Your task to perform on an android device: Open wifi settings Image 0: 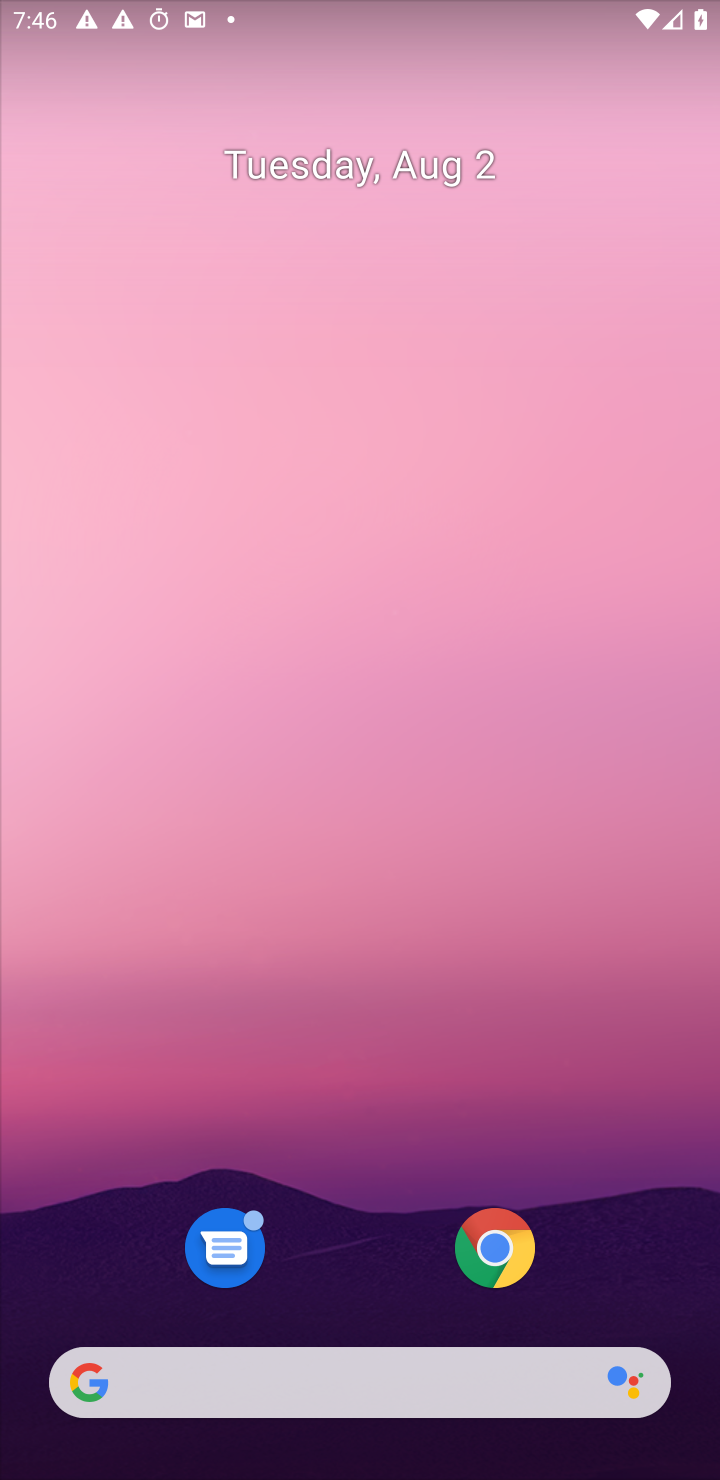
Step 0: press home button
Your task to perform on an android device: Open wifi settings Image 1: 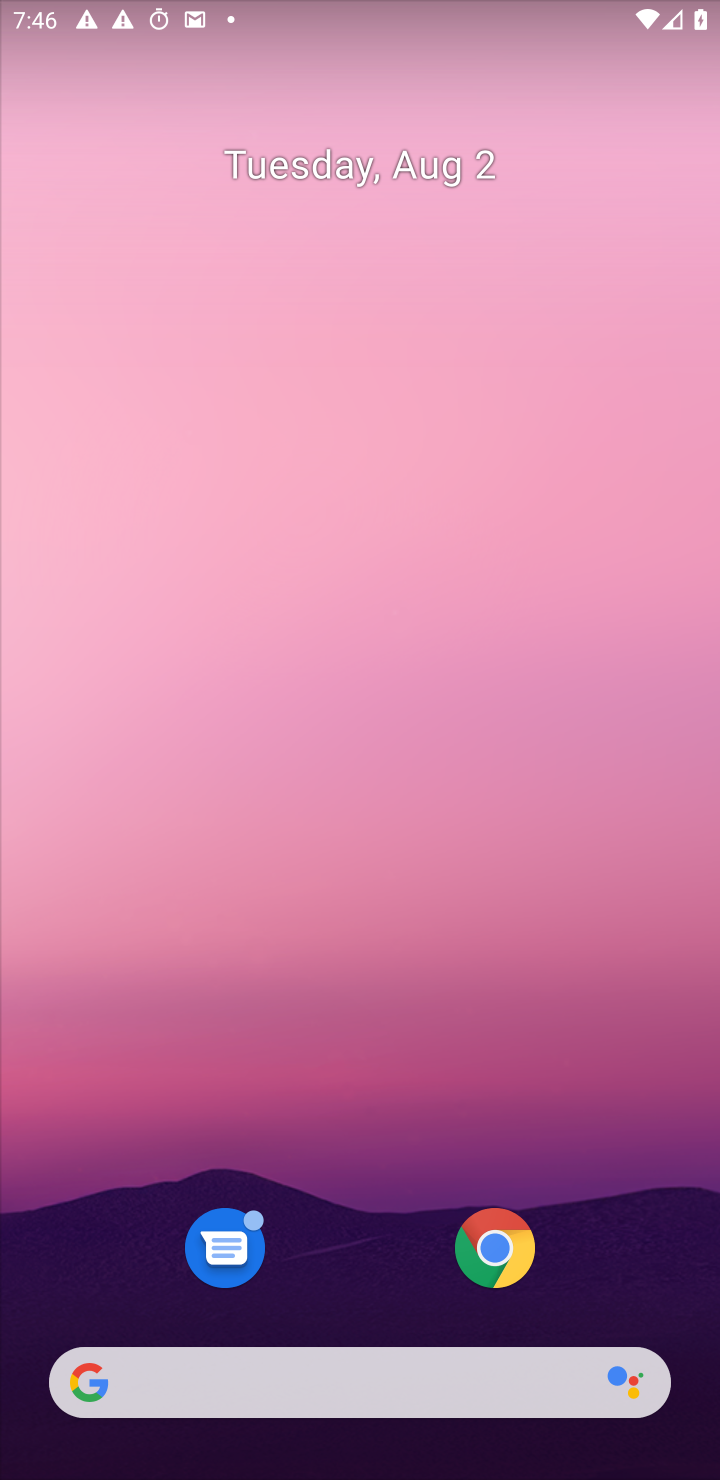
Step 1: drag from (392, 1054) to (464, 0)
Your task to perform on an android device: Open wifi settings Image 2: 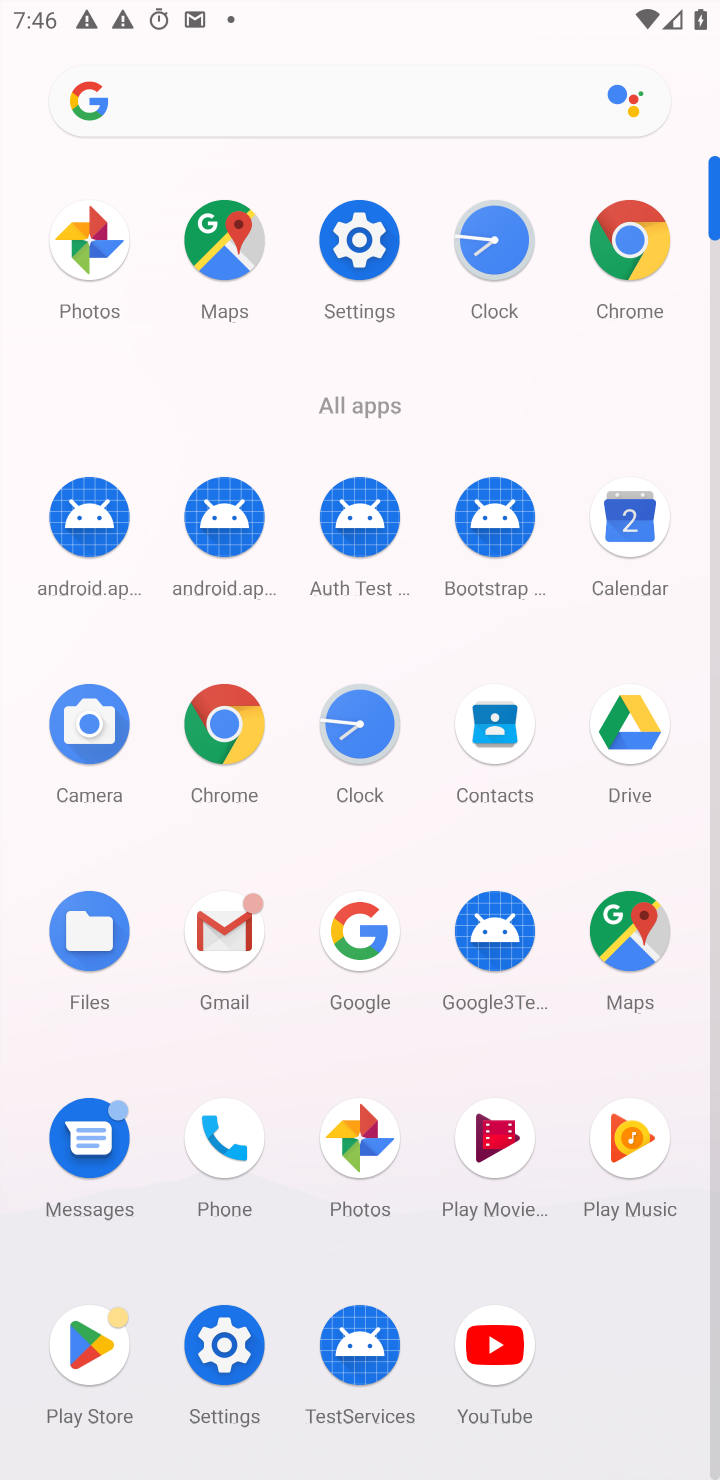
Step 2: click (362, 235)
Your task to perform on an android device: Open wifi settings Image 3: 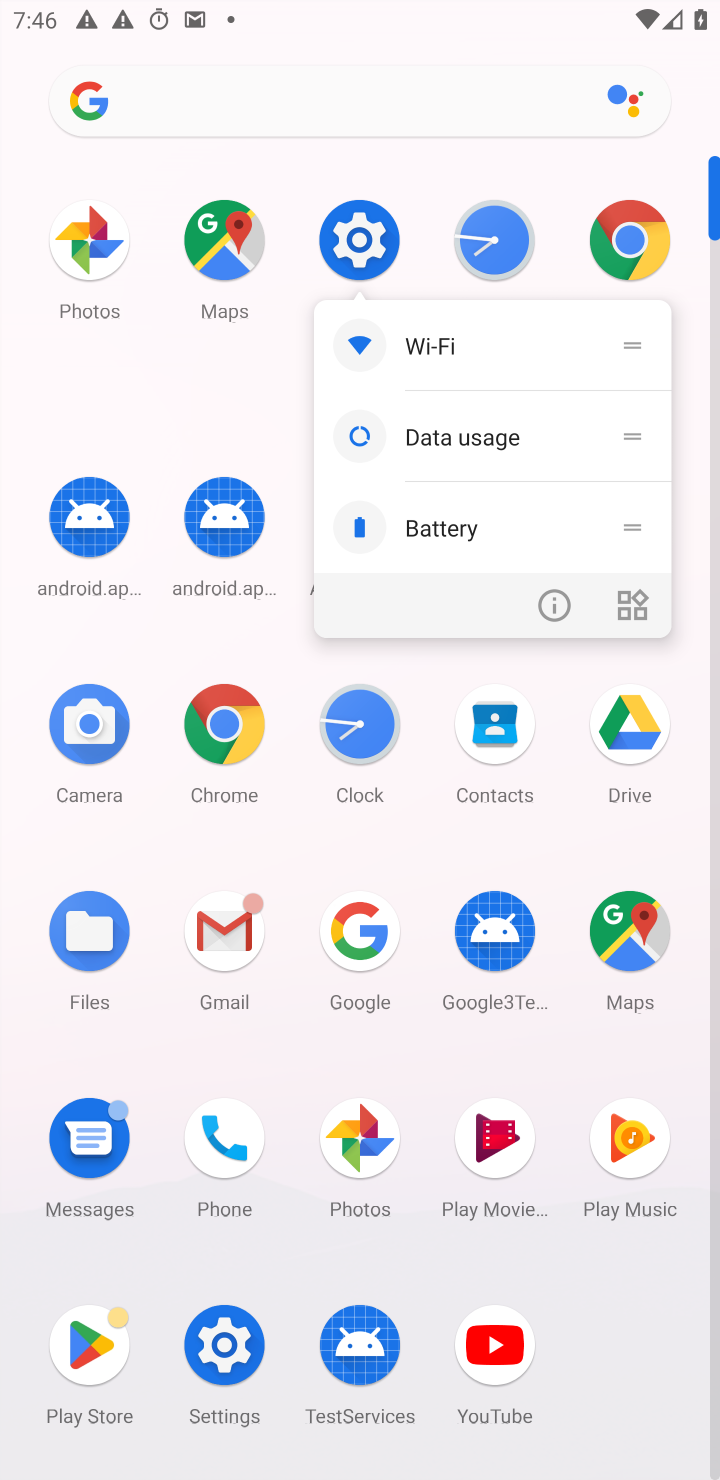
Step 3: click (472, 346)
Your task to perform on an android device: Open wifi settings Image 4: 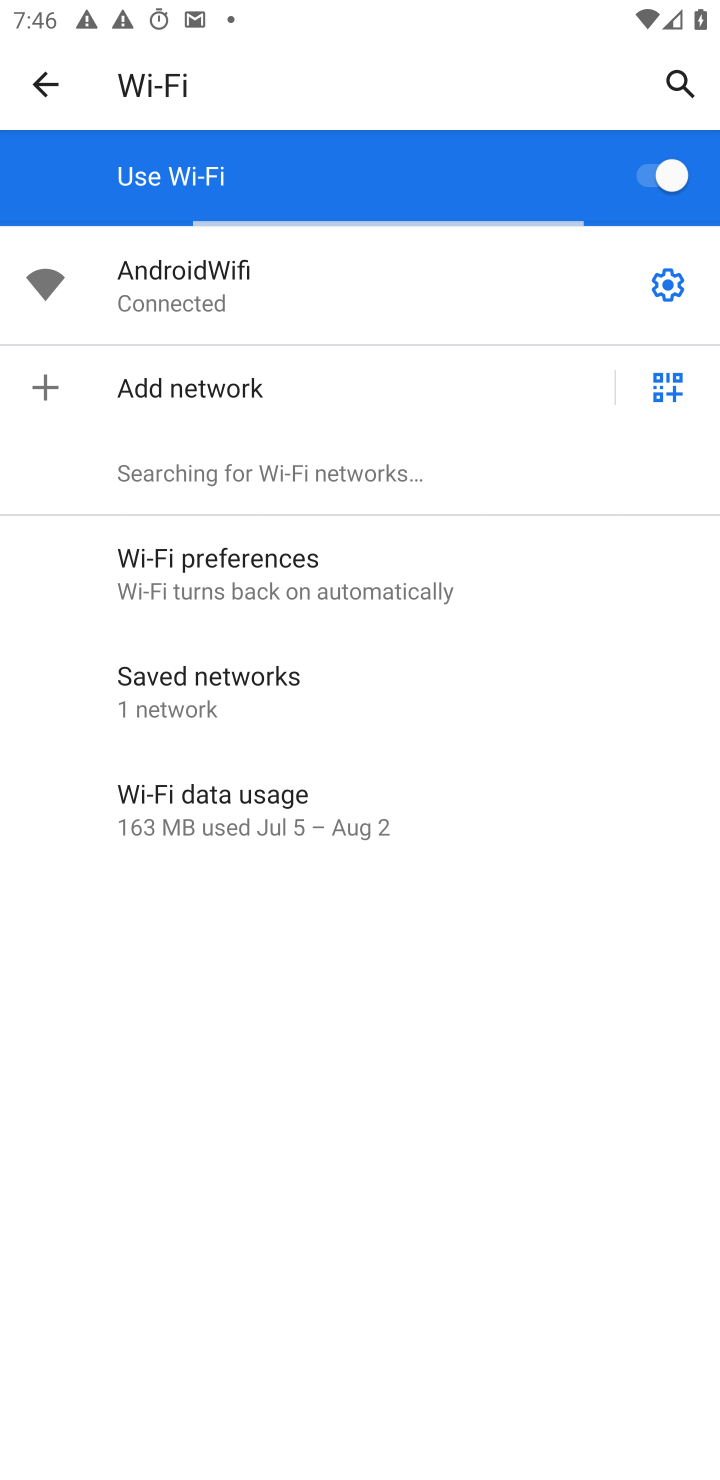
Step 4: drag from (266, 1047) to (427, 1478)
Your task to perform on an android device: Open wifi settings Image 5: 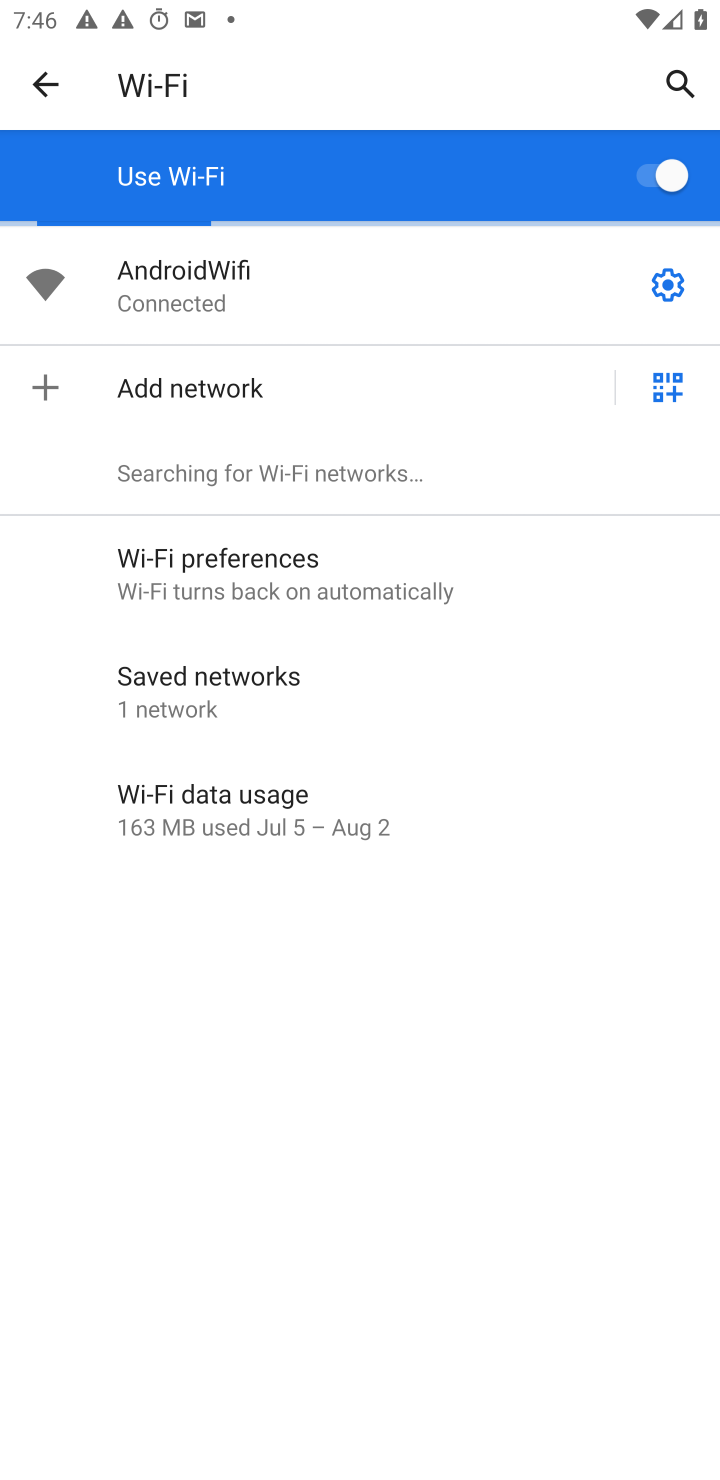
Step 5: click (663, 286)
Your task to perform on an android device: Open wifi settings Image 6: 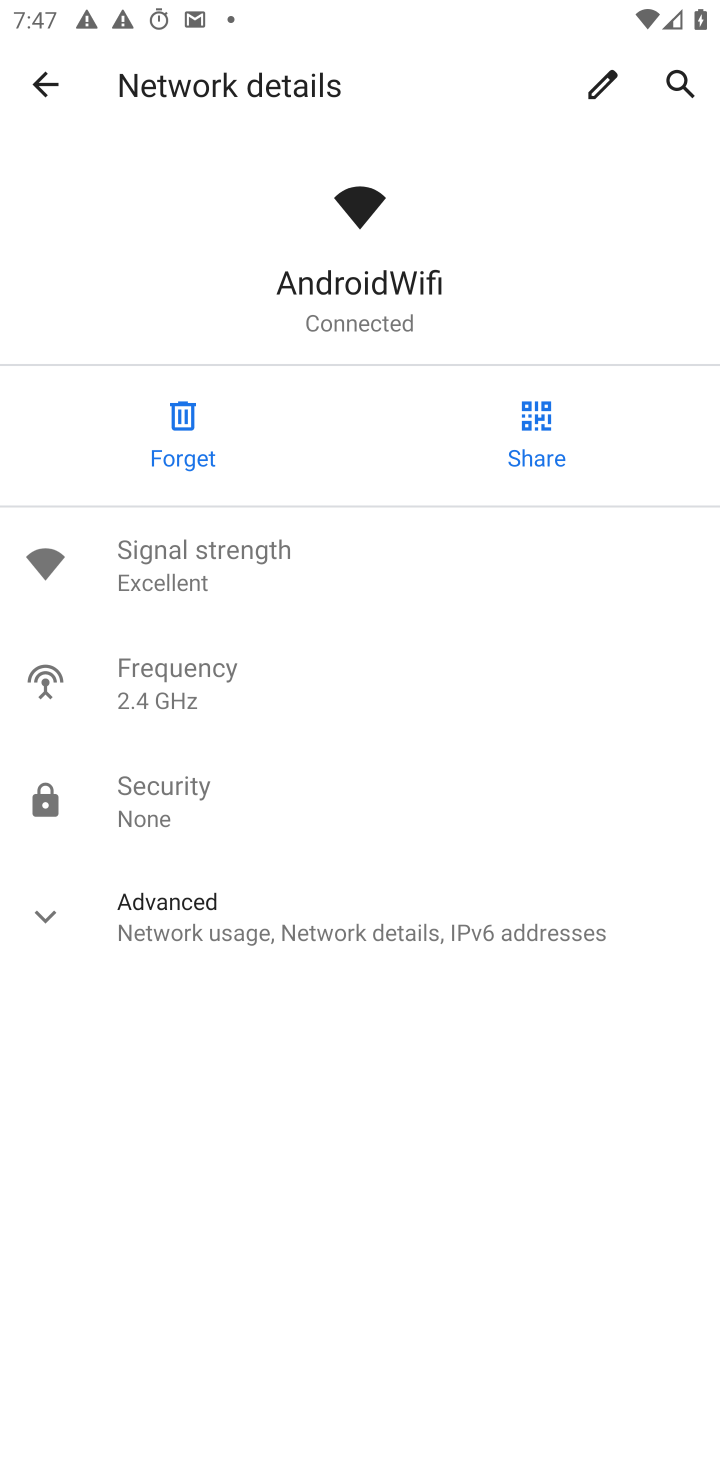
Step 6: click (311, 1076)
Your task to perform on an android device: Open wifi settings Image 7: 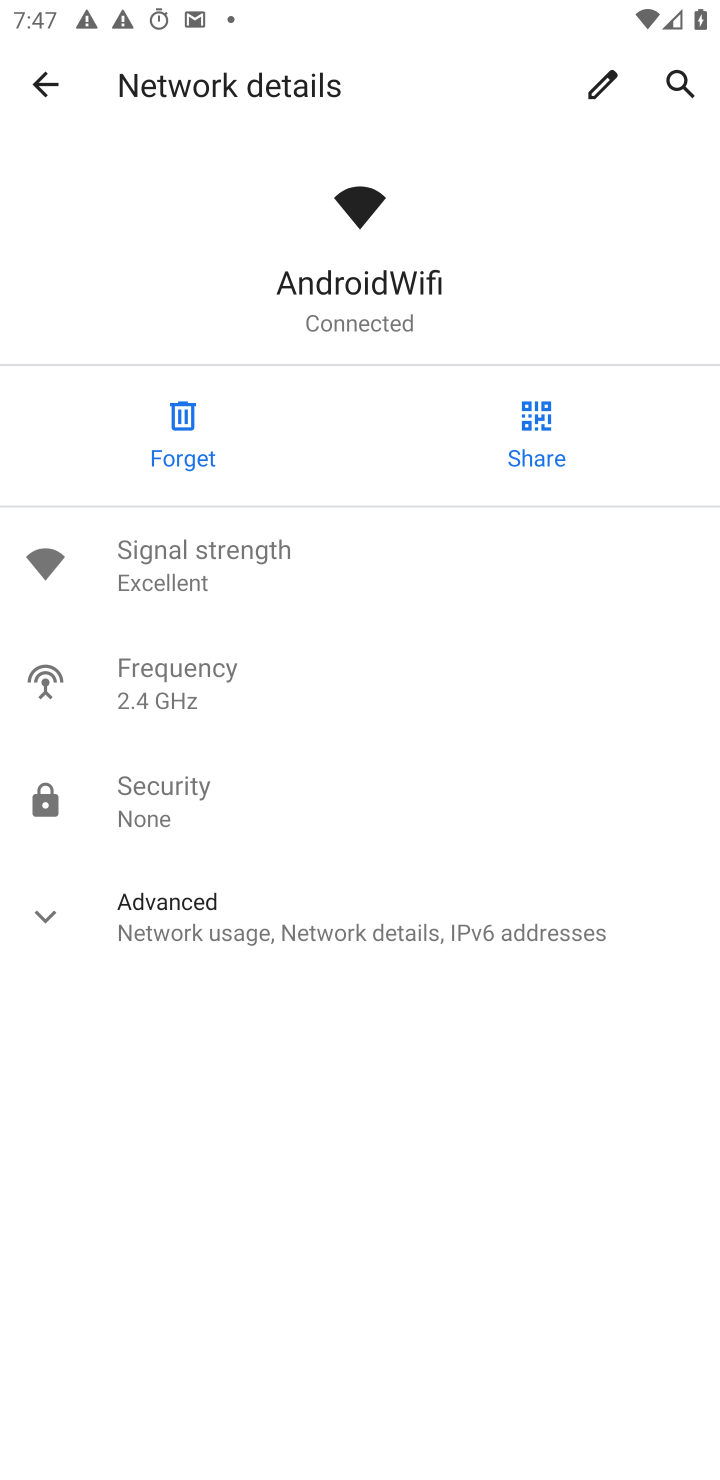
Step 7: drag from (261, 677) to (489, 1404)
Your task to perform on an android device: Open wifi settings Image 8: 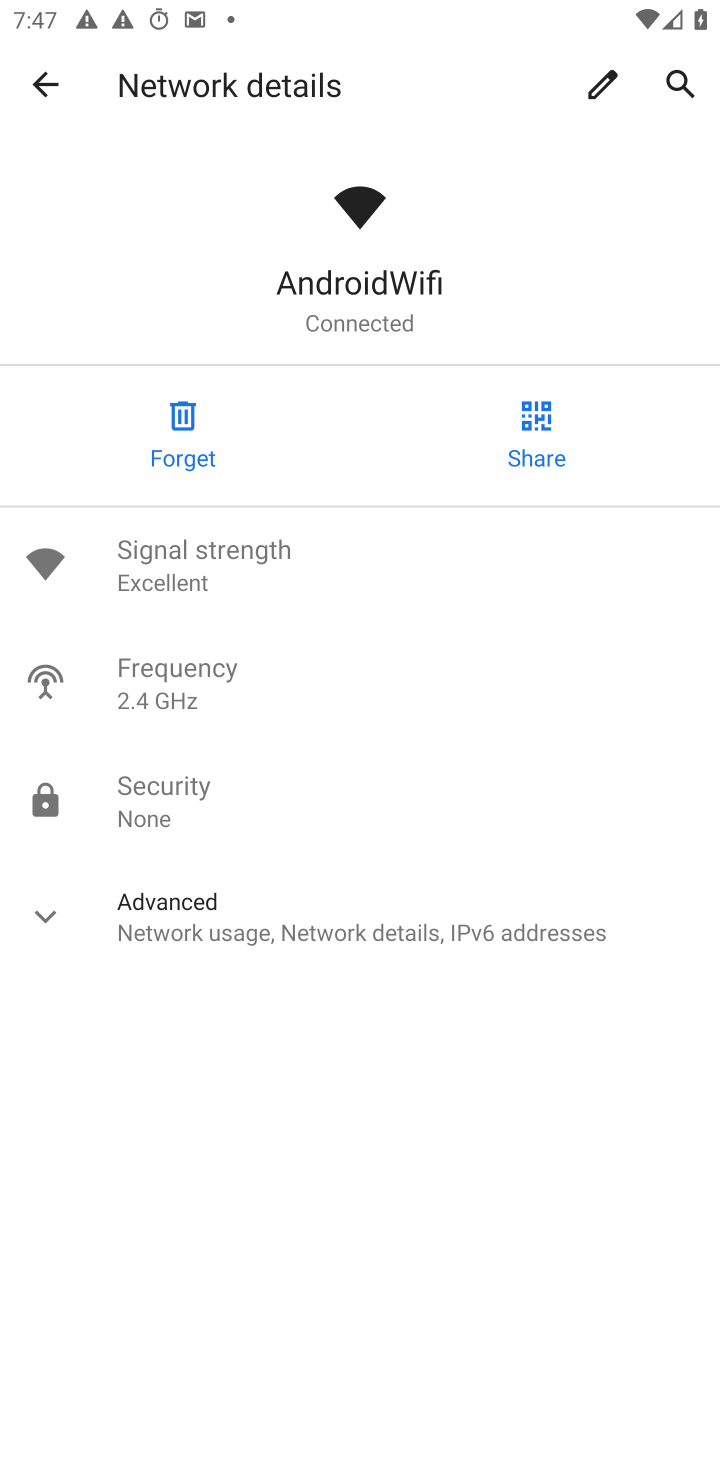
Step 8: drag from (390, 1147) to (219, 267)
Your task to perform on an android device: Open wifi settings Image 9: 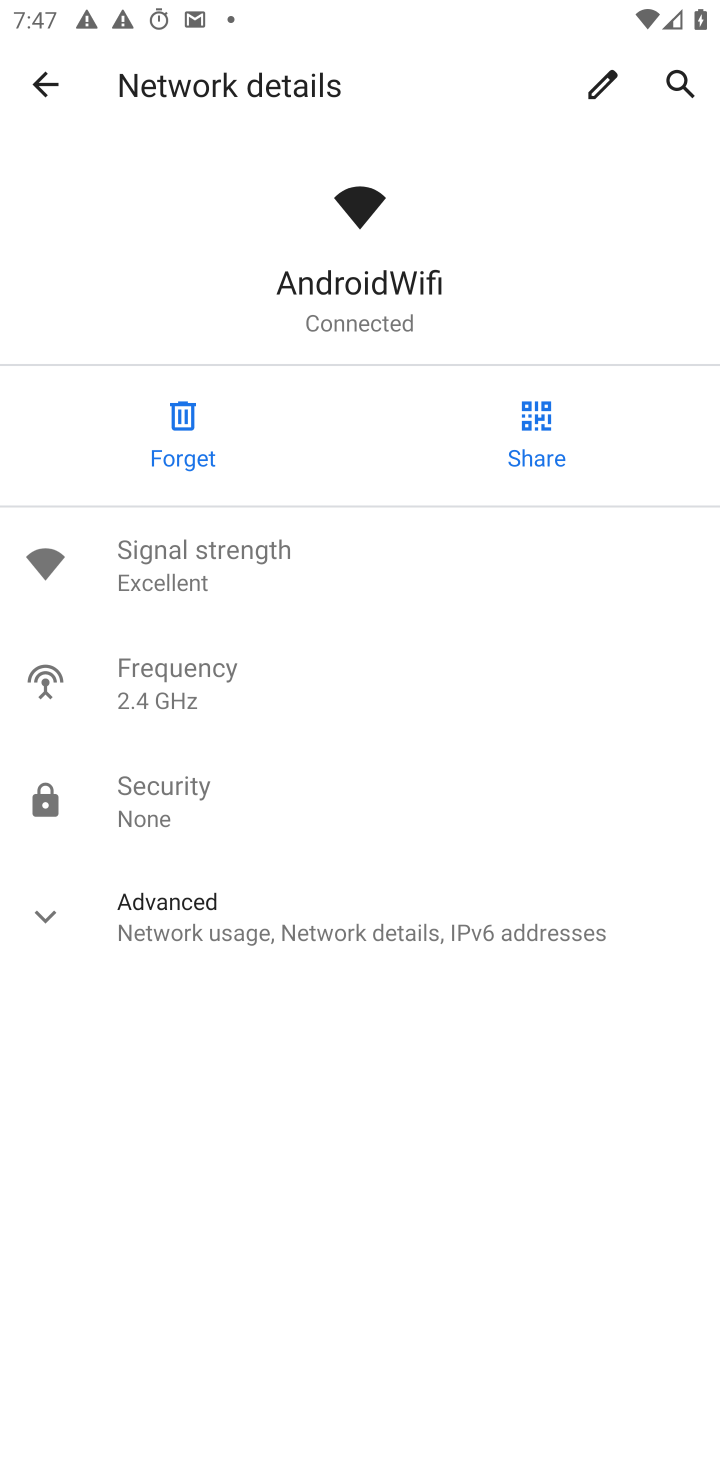
Step 9: drag from (246, 1044) to (313, 344)
Your task to perform on an android device: Open wifi settings Image 10: 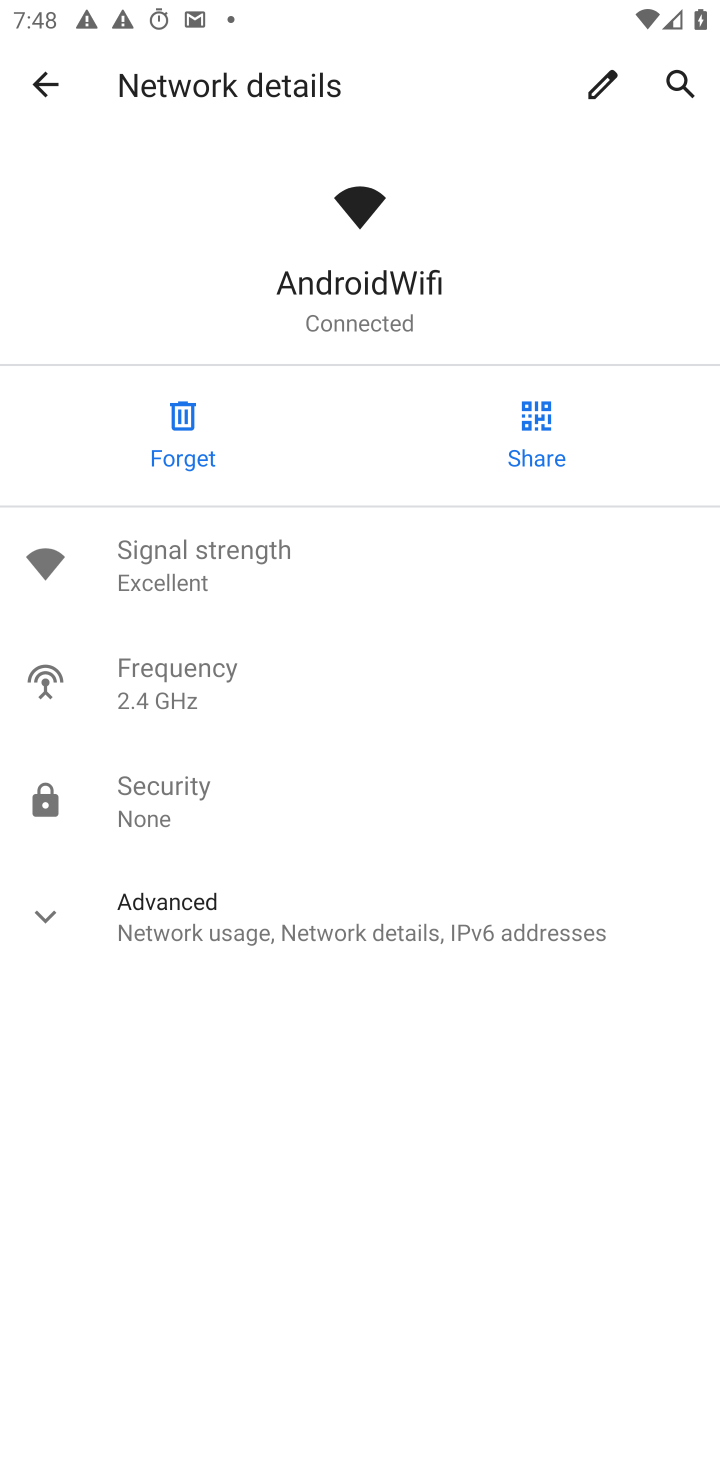
Step 10: drag from (337, 959) to (378, 465)
Your task to perform on an android device: Open wifi settings Image 11: 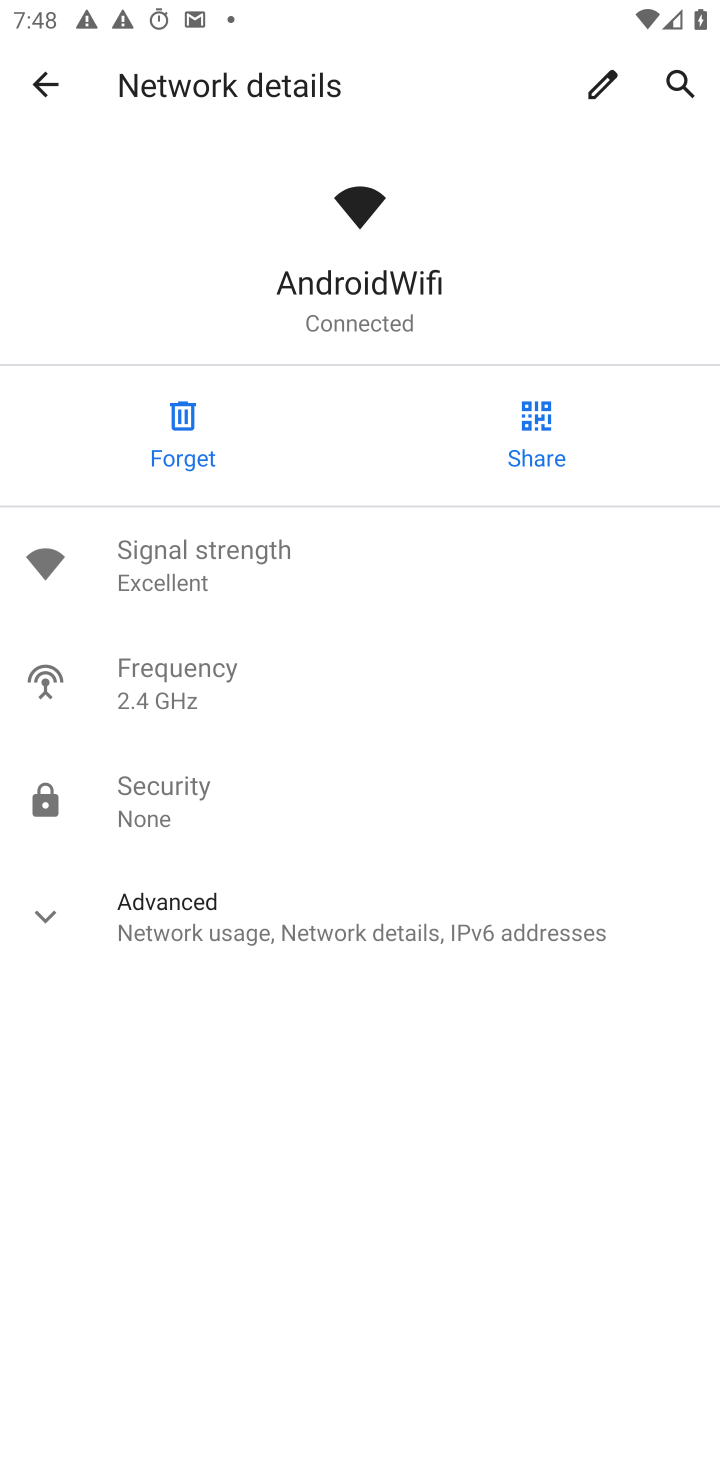
Step 11: drag from (314, 1034) to (372, 347)
Your task to perform on an android device: Open wifi settings Image 12: 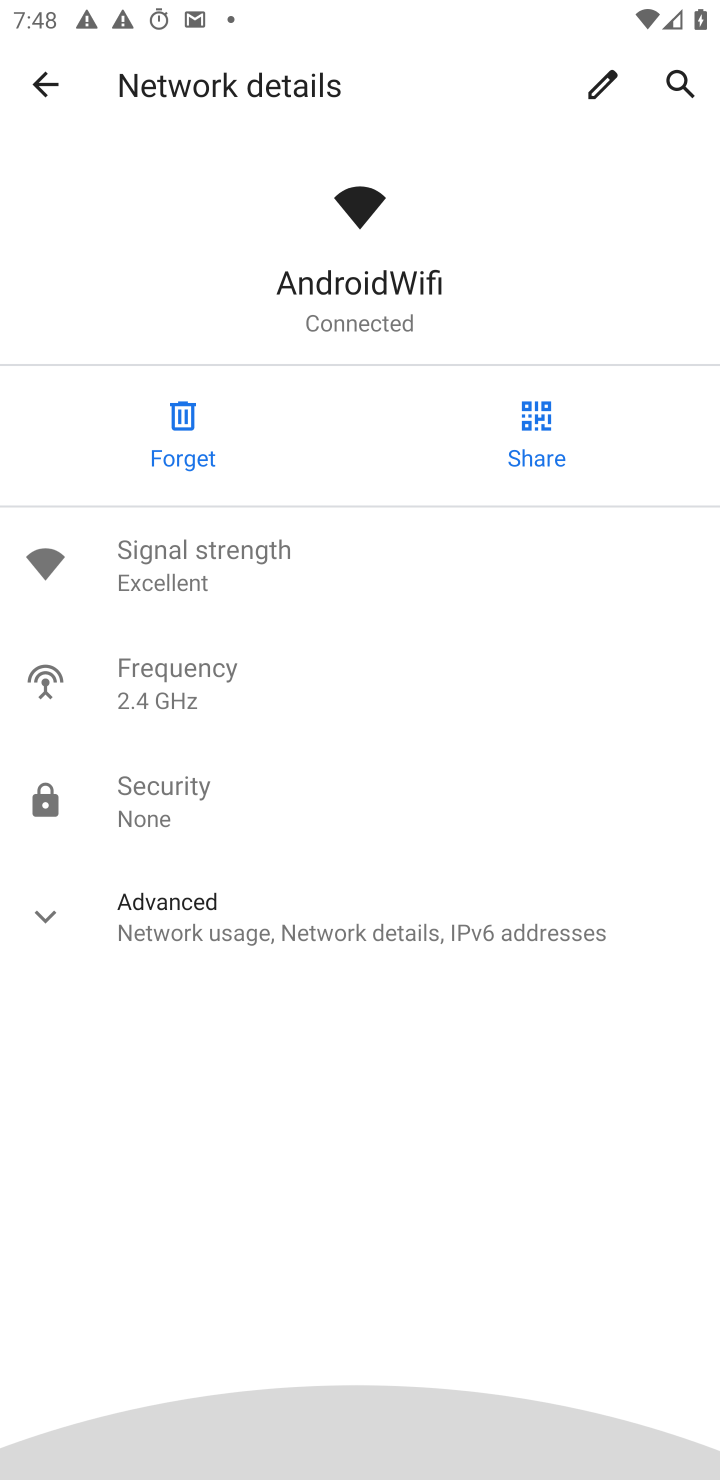
Step 12: drag from (471, 772) to (510, 1125)
Your task to perform on an android device: Open wifi settings Image 13: 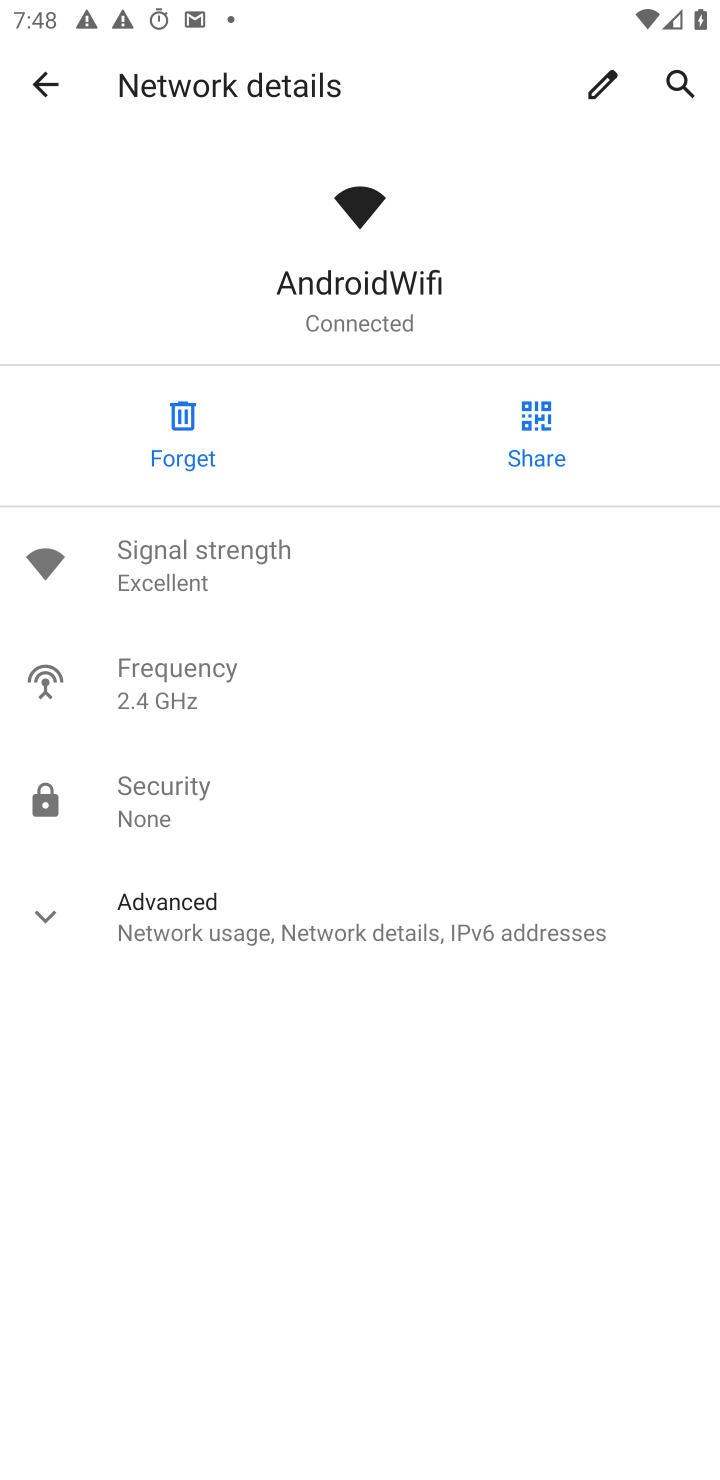
Step 13: drag from (334, 289) to (354, 1034)
Your task to perform on an android device: Open wifi settings Image 14: 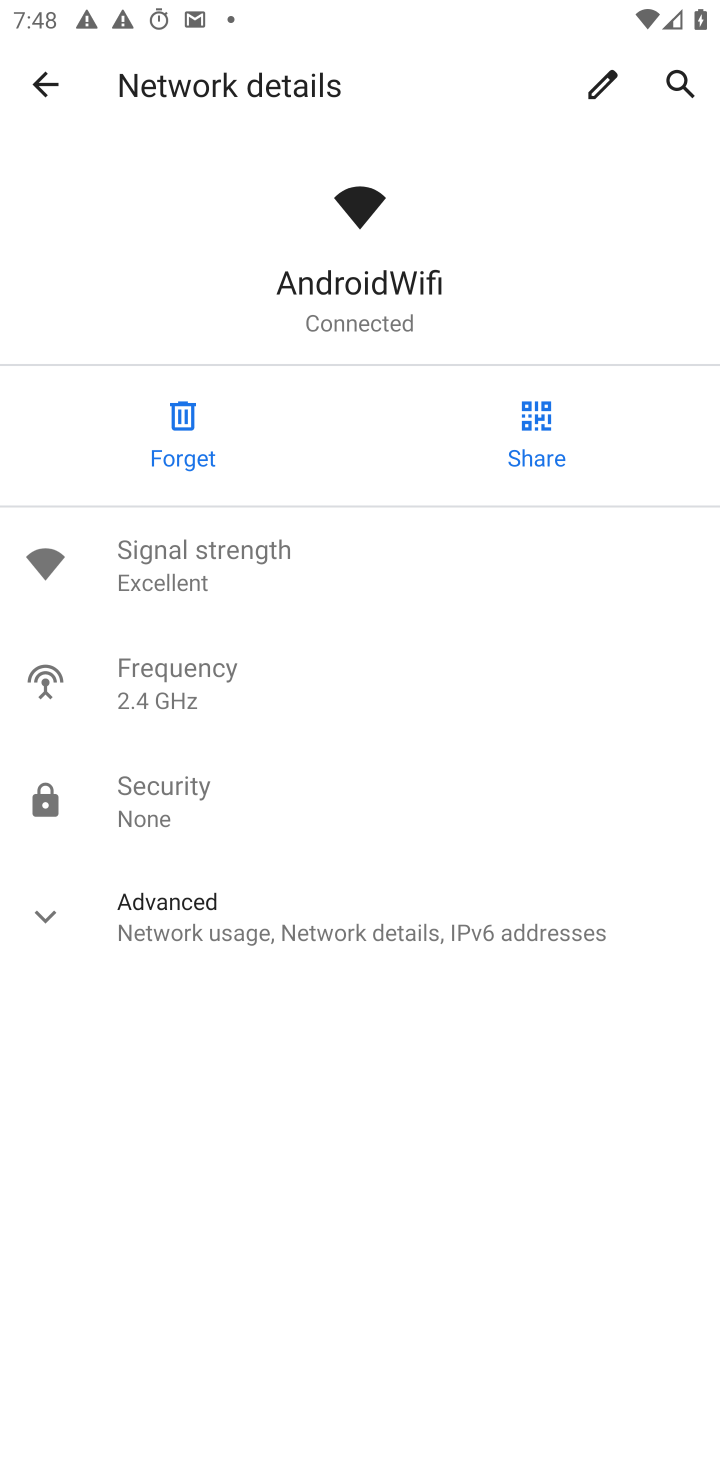
Step 14: drag from (350, 830) to (402, 345)
Your task to perform on an android device: Open wifi settings Image 15: 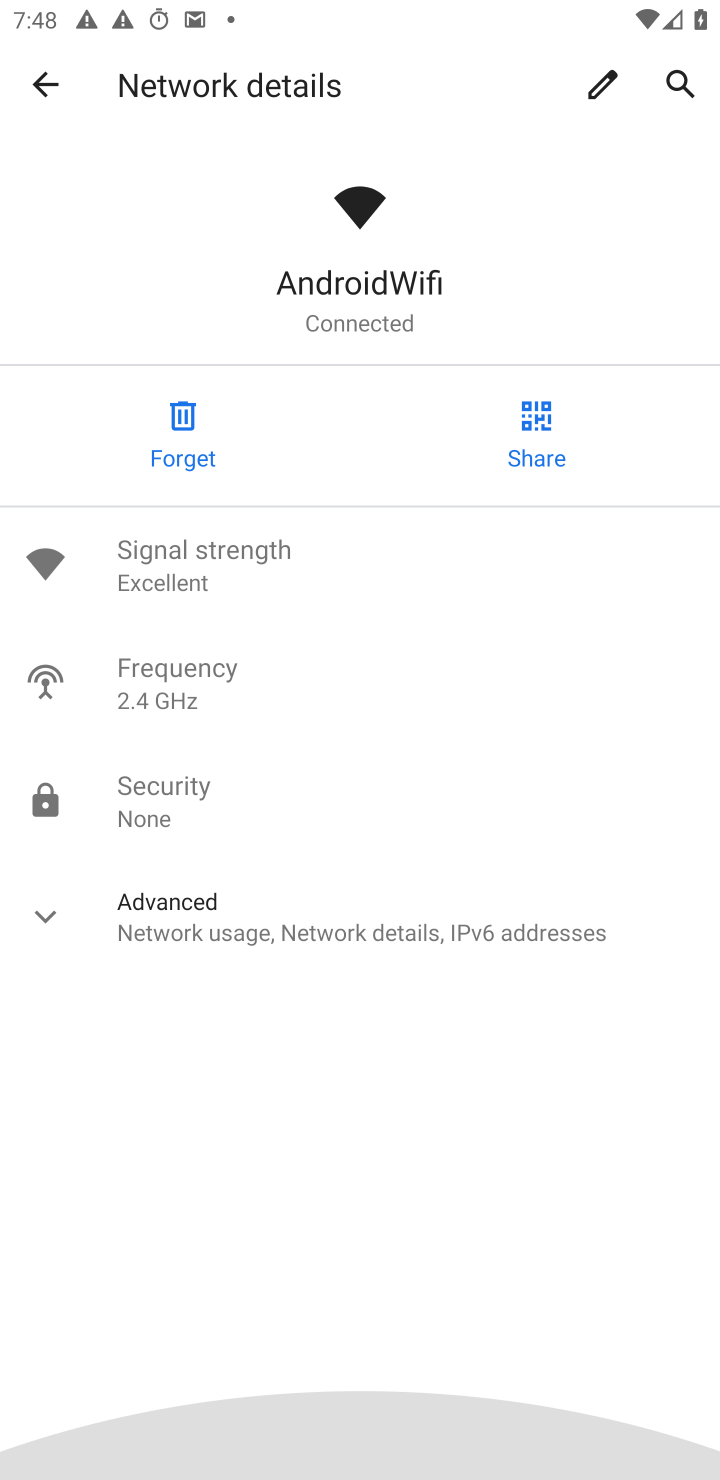
Step 15: drag from (408, 333) to (380, 1141)
Your task to perform on an android device: Open wifi settings Image 16: 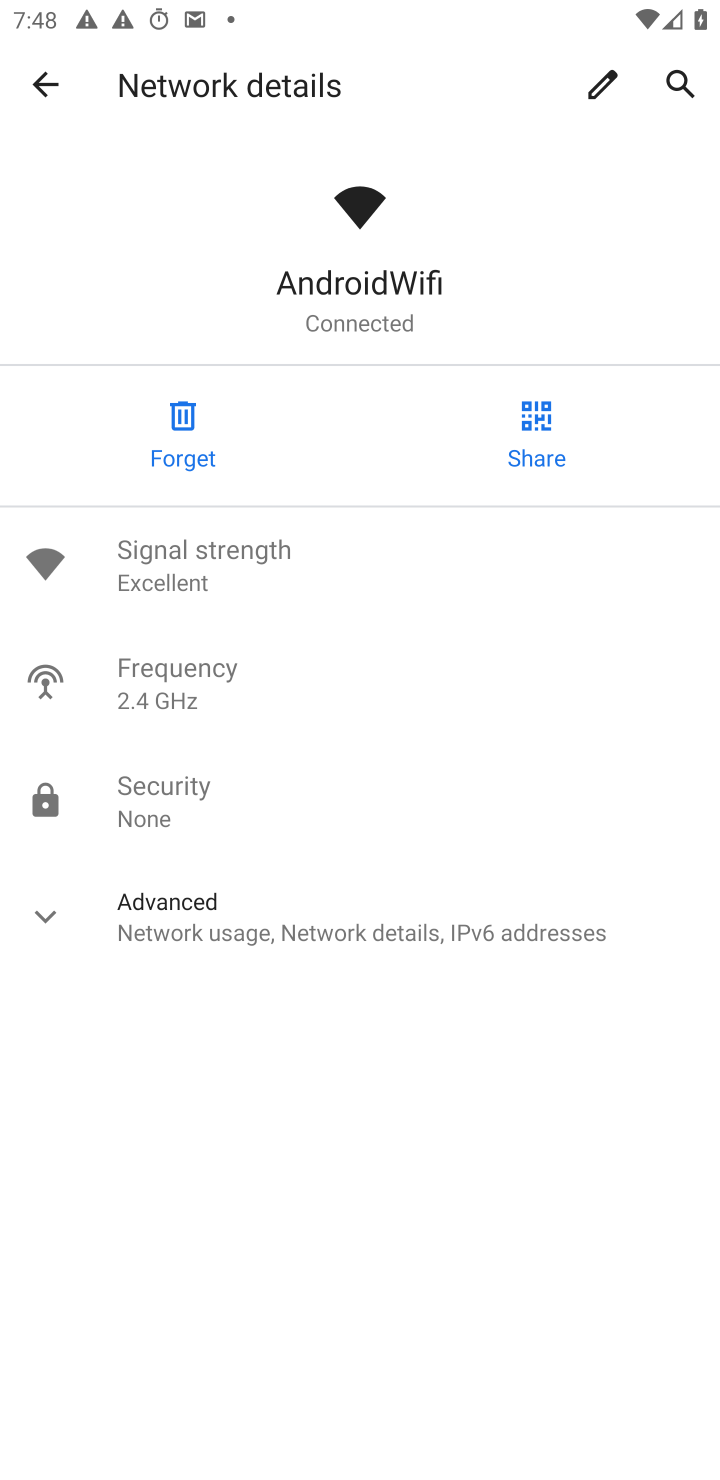
Step 16: drag from (440, 425) to (497, 1221)
Your task to perform on an android device: Open wifi settings Image 17: 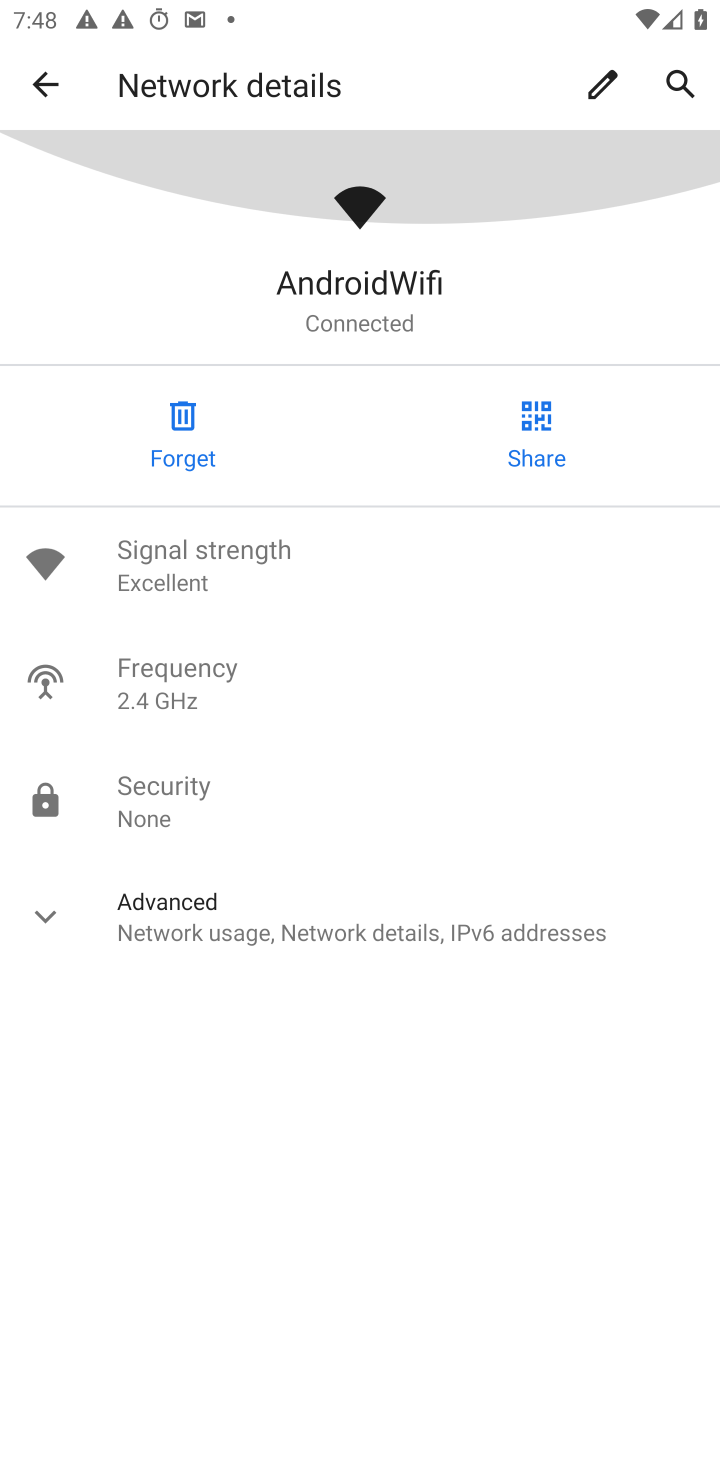
Step 17: drag from (442, 1169) to (395, 426)
Your task to perform on an android device: Open wifi settings Image 18: 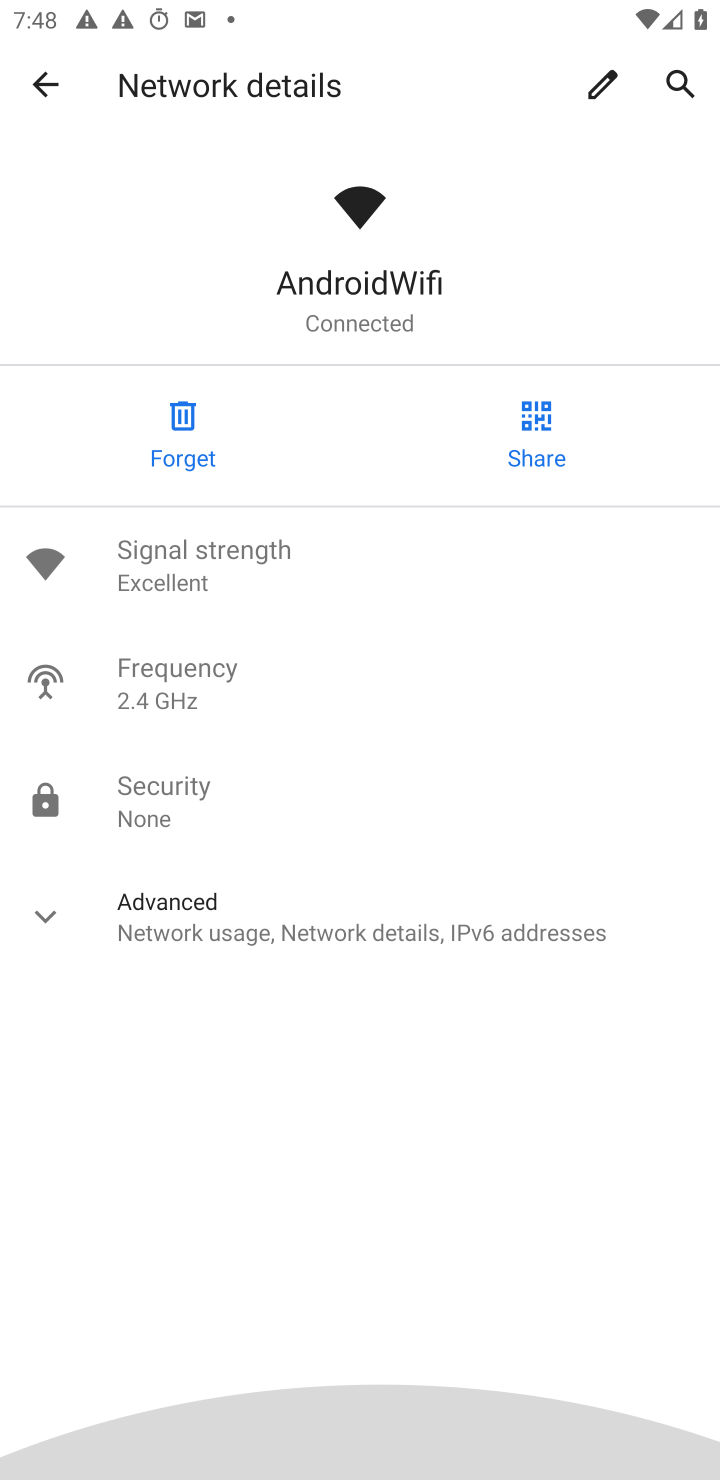
Step 18: drag from (395, 377) to (398, 1164)
Your task to perform on an android device: Open wifi settings Image 19: 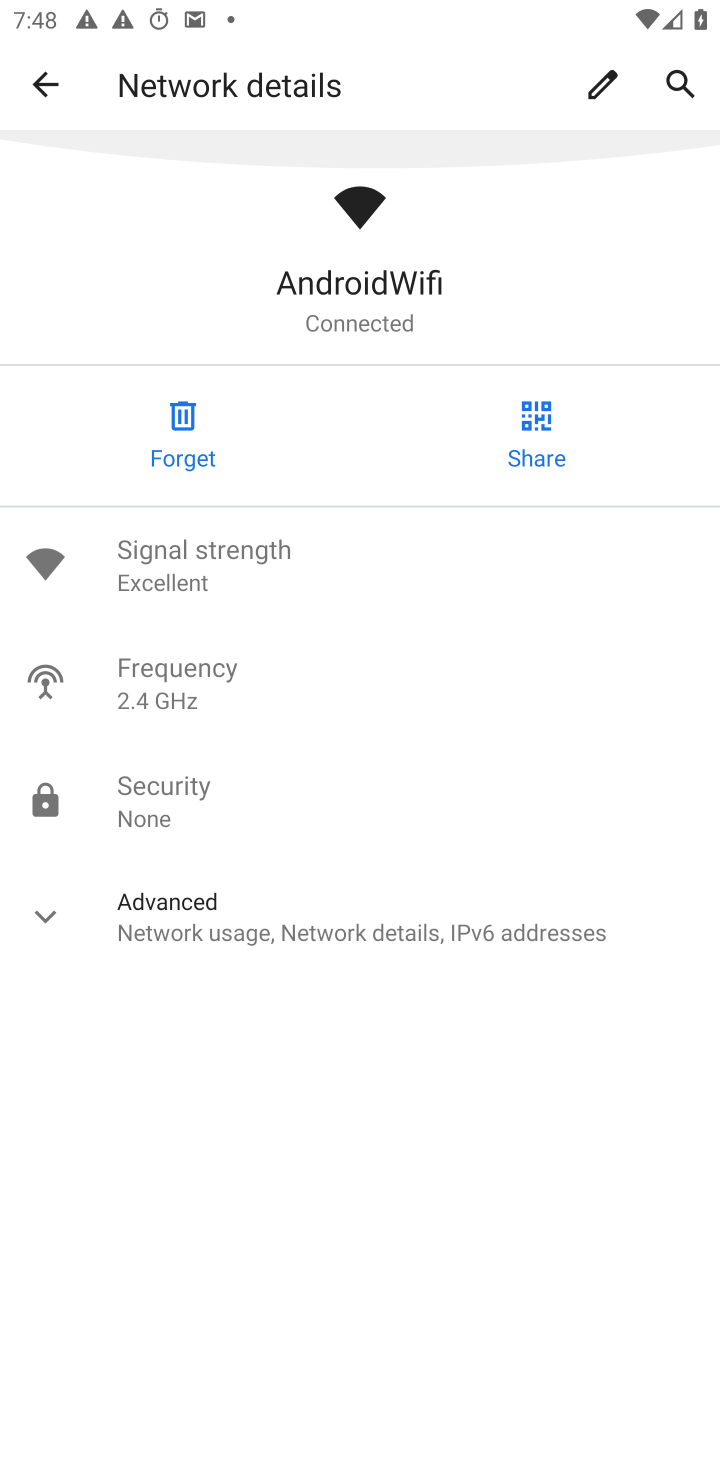
Step 19: drag from (388, 1015) to (414, 190)
Your task to perform on an android device: Open wifi settings Image 20: 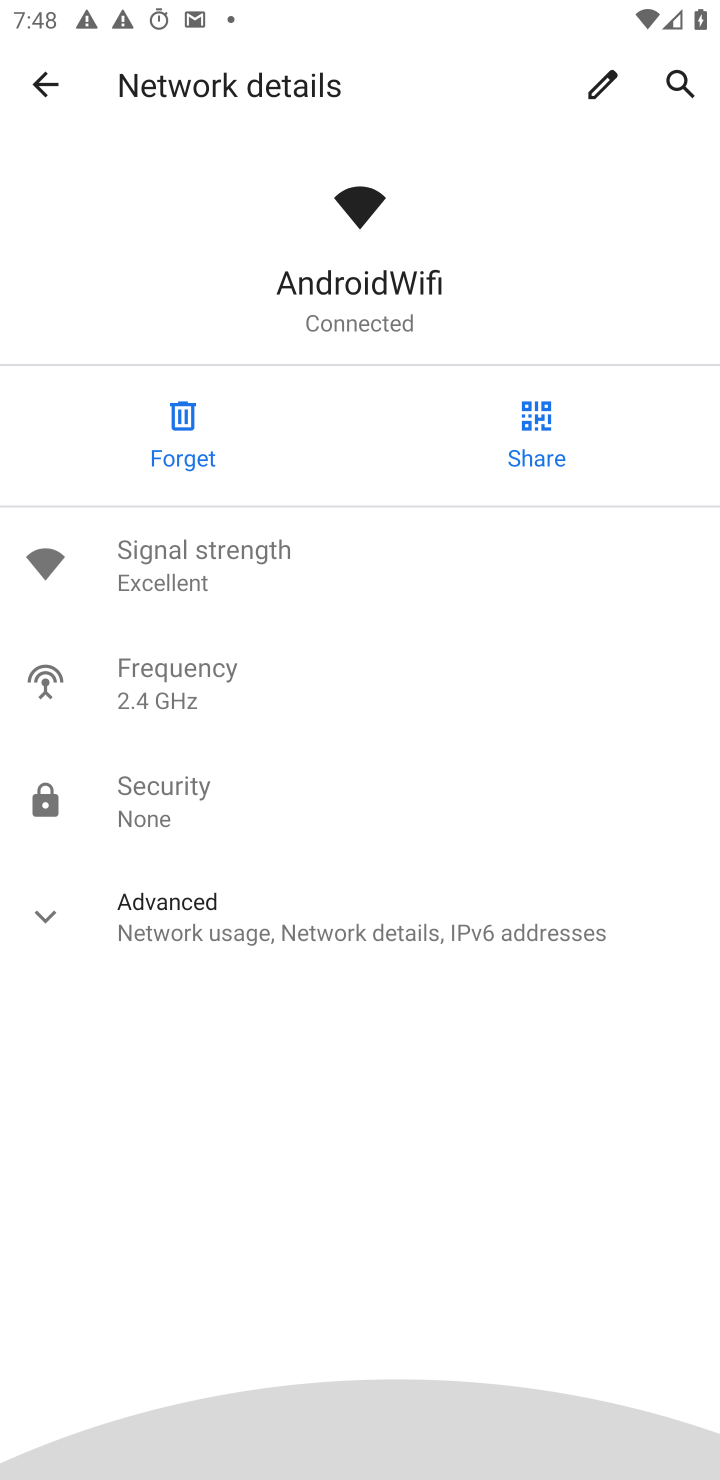
Step 20: drag from (328, 305) to (362, 1281)
Your task to perform on an android device: Open wifi settings Image 21: 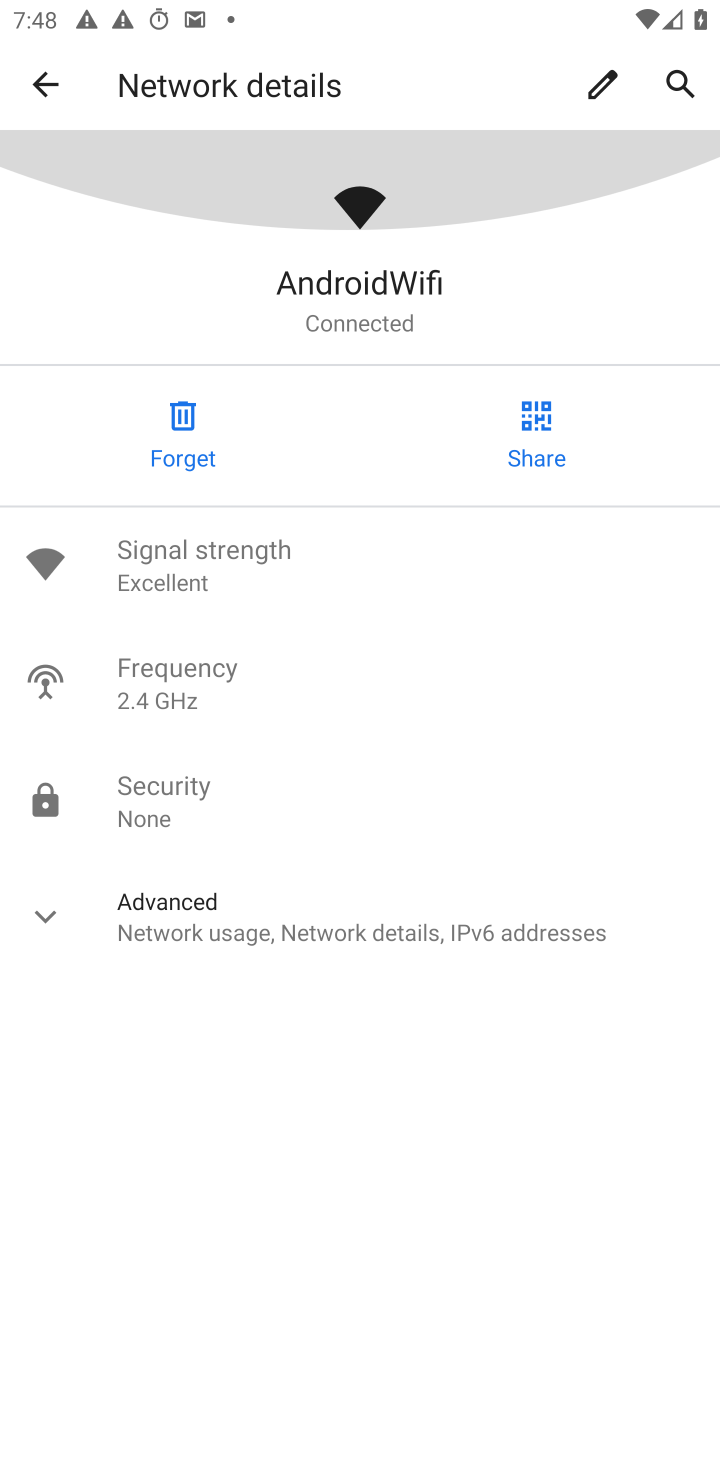
Step 21: drag from (350, 1107) to (355, 417)
Your task to perform on an android device: Open wifi settings Image 22: 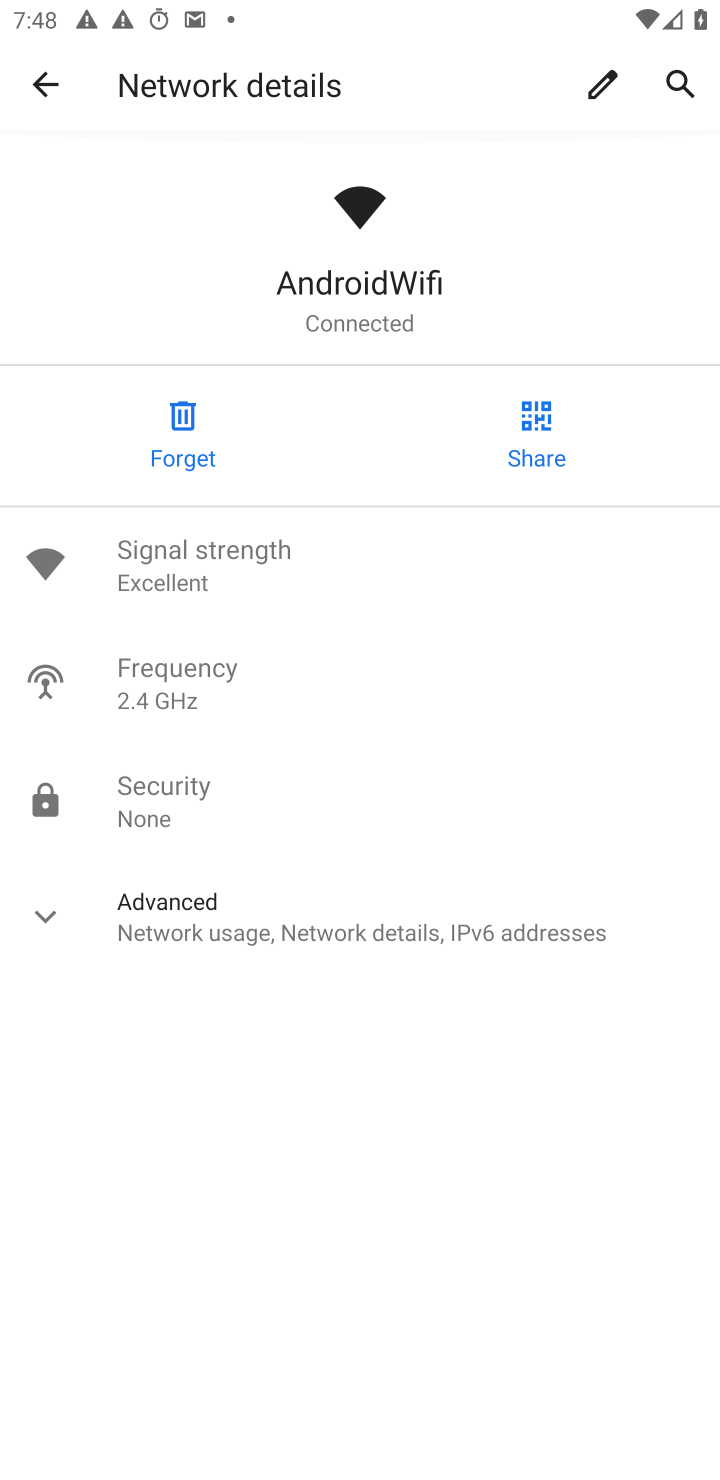
Step 22: drag from (369, 445) to (392, 952)
Your task to perform on an android device: Open wifi settings Image 23: 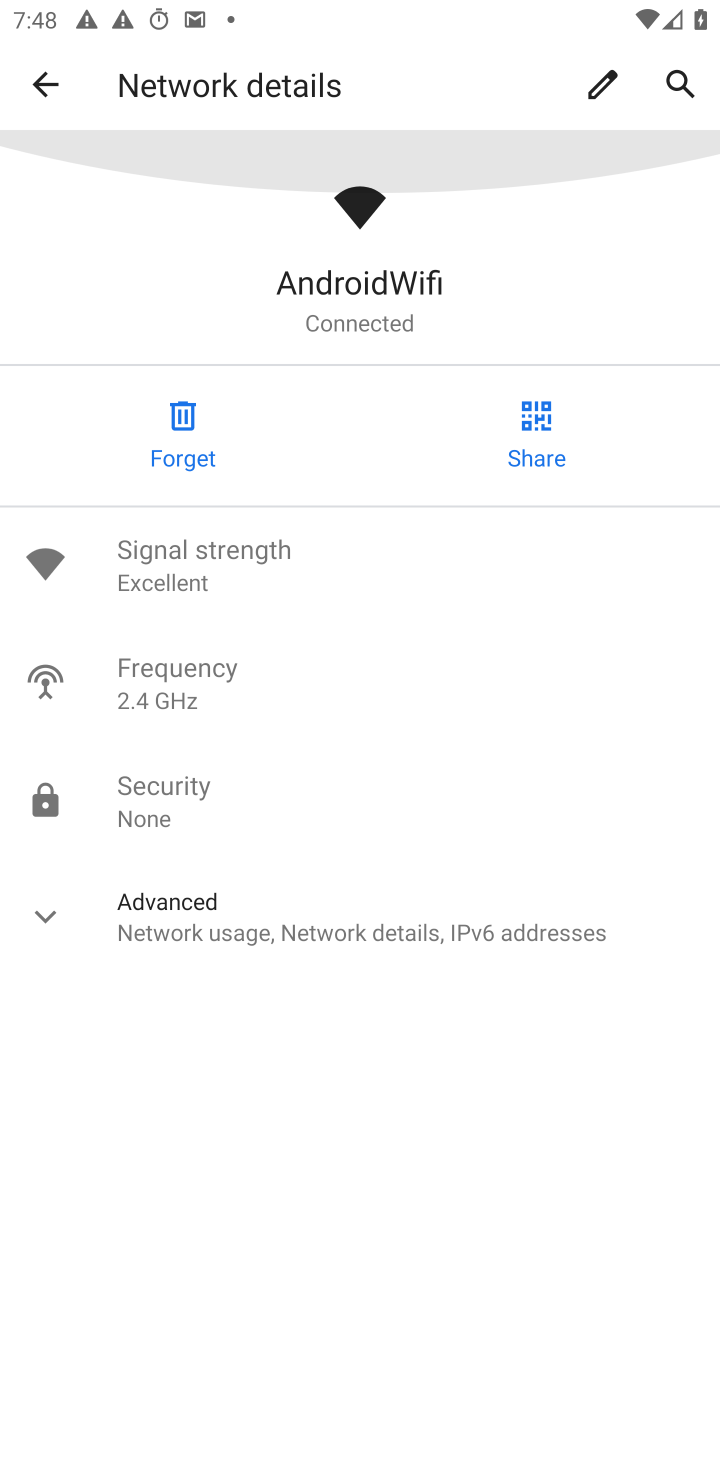
Step 23: click (57, 79)
Your task to perform on an android device: Open wifi settings Image 24: 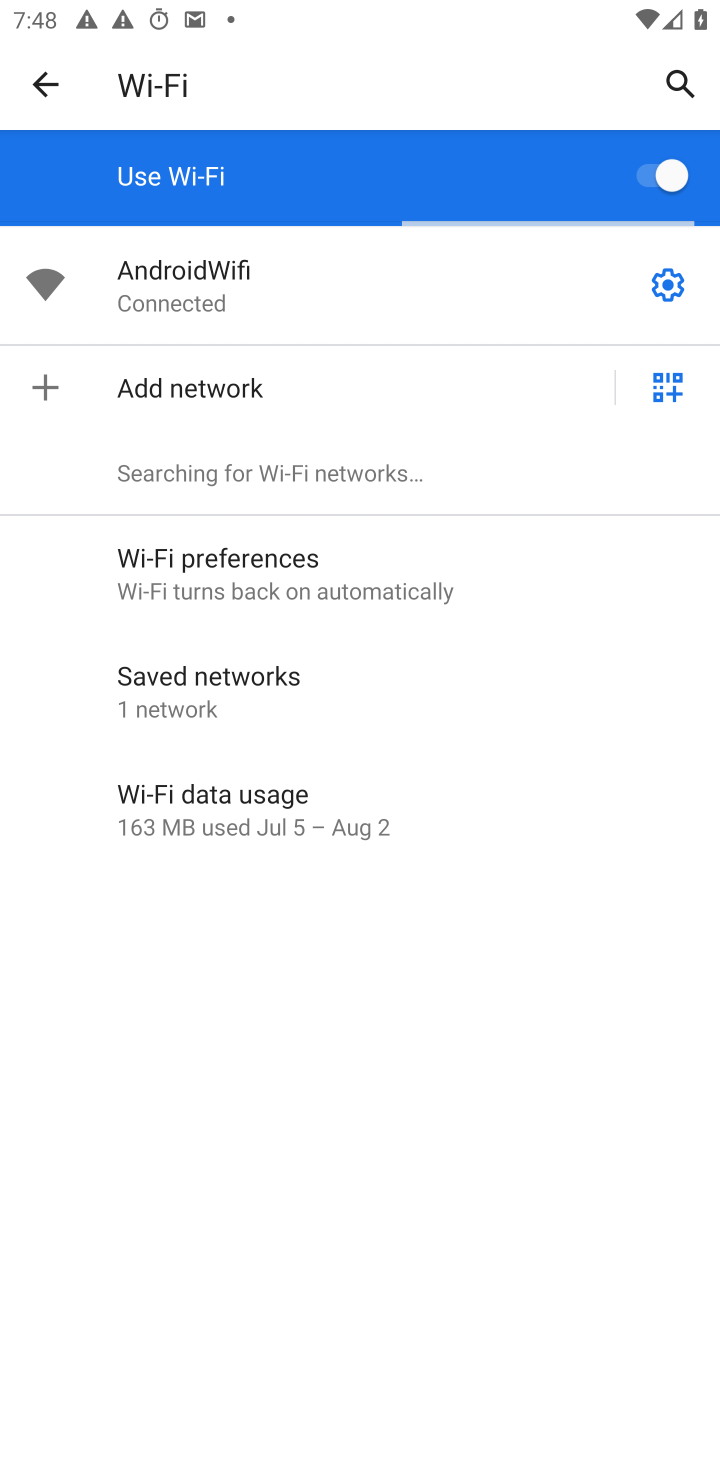
Step 24: click (665, 275)
Your task to perform on an android device: Open wifi settings Image 25: 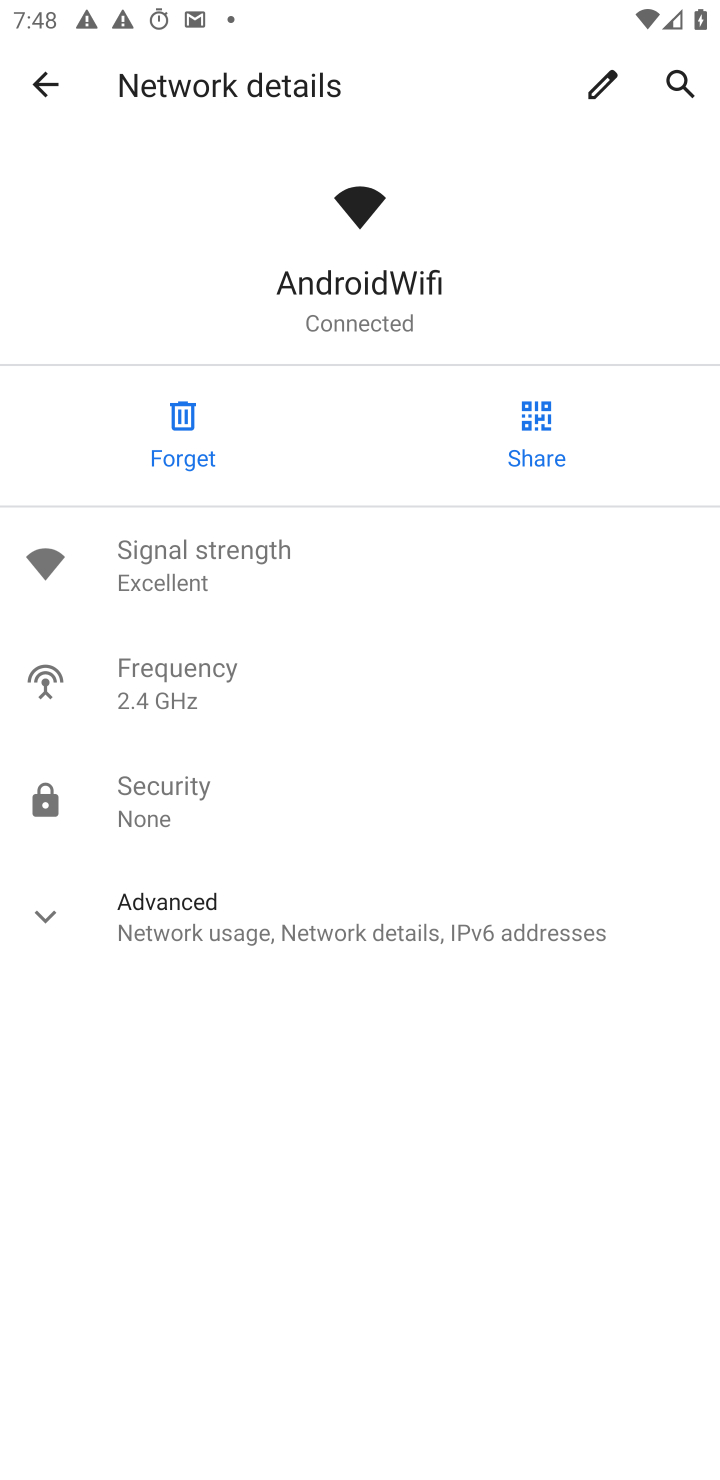
Step 25: task complete